Your task to perform on an android device: Go to sound settings Image 0: 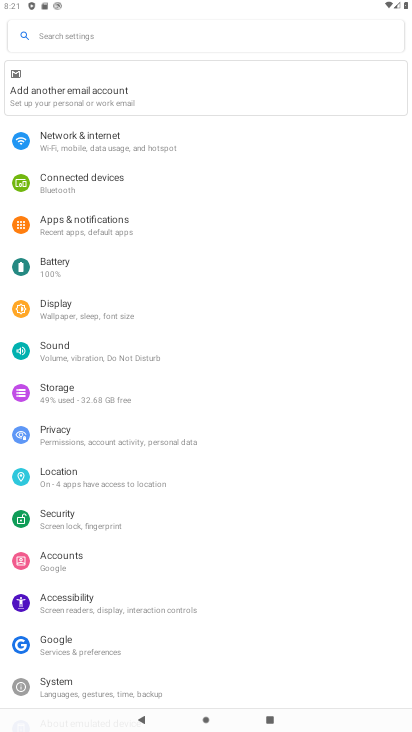
Step 0: press home button
Your task to perform on an android device: Go to sound settings Image 1: 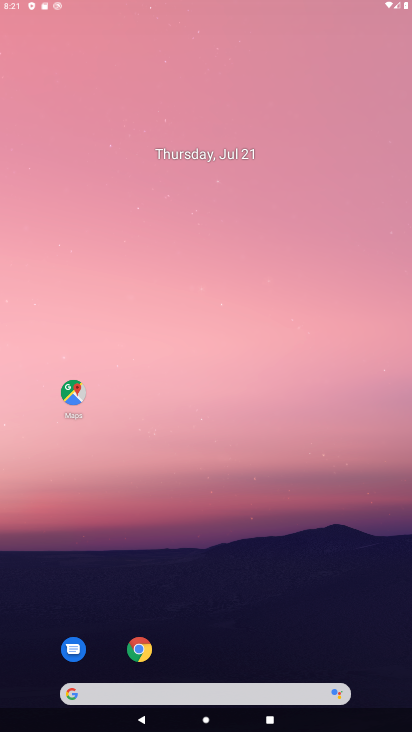
Step 1: drag from (202, 646) to (300, 136)
Your task to perform on an android device: Go to sound settings Image 2: 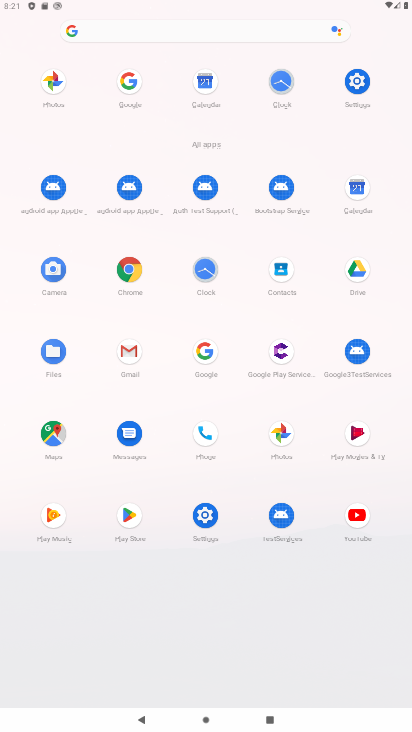
Step 2: click (356, 76)
Your task to perform on an android device: Go to sound settings Image 3: 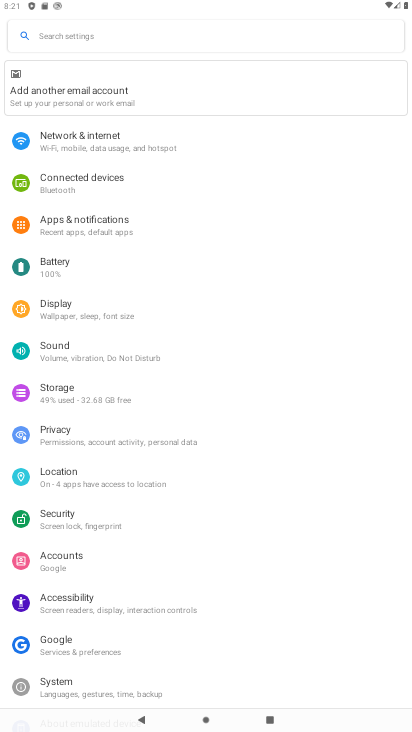
Step 3: click (76, 351)
Your task to perform on an android device: Go to sound settings Image 4: 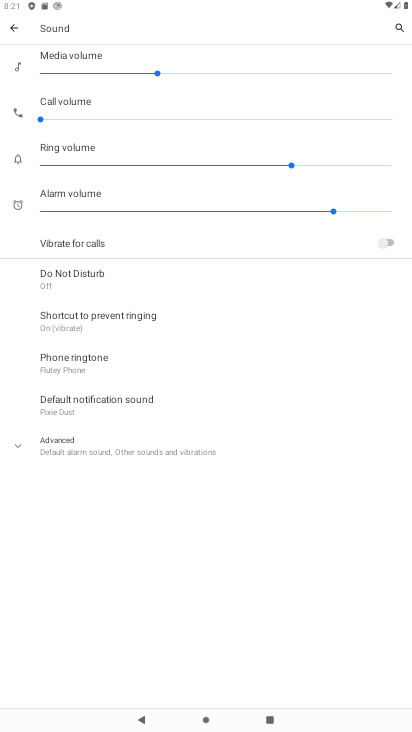
Step 4: task complete